Your task to perform on an android device: turn on the 12-hour format for clock Image 0: 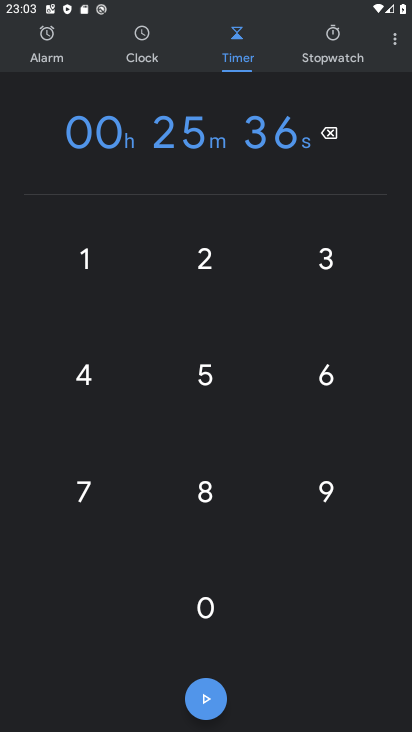
Step 0: click (392, 32)
Your task to perform on an android device: turn on the 12-hour format for clock Image 1: 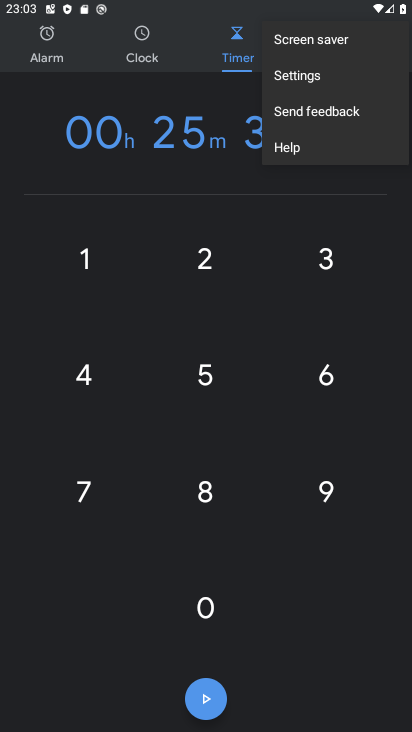
Step 1: click (327, 76)
Your task to perform on an android device: turn on the 12-hour format for clock Image 2: 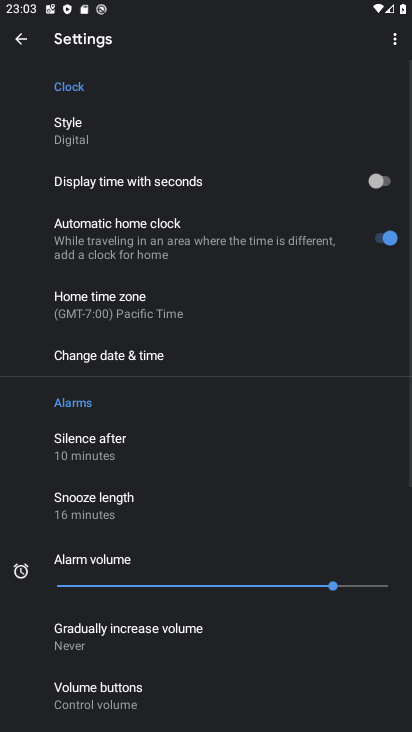
Step 2: click (211, 359)
Your task to perform on an android device: turn on the 12-hour format for clock Image 3: 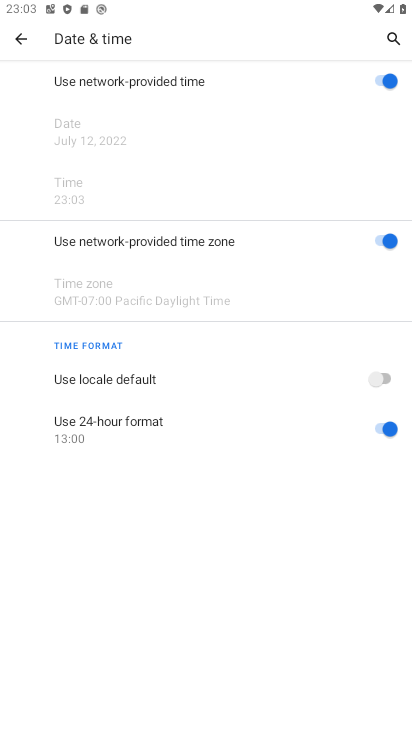
Step 3: click (392, 427)
Your task to perform on an android device: turn on the 12-hour format for clock Image 4: 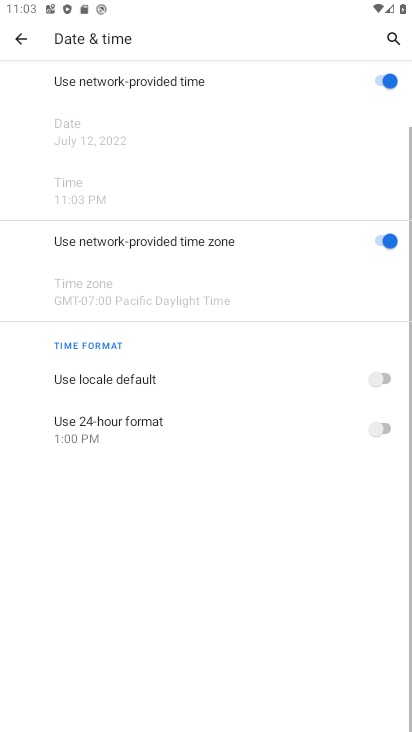
Step 4: click (377, 378)
Your task to perform on an android device: turn on the 12-hour format for clock Image 5: 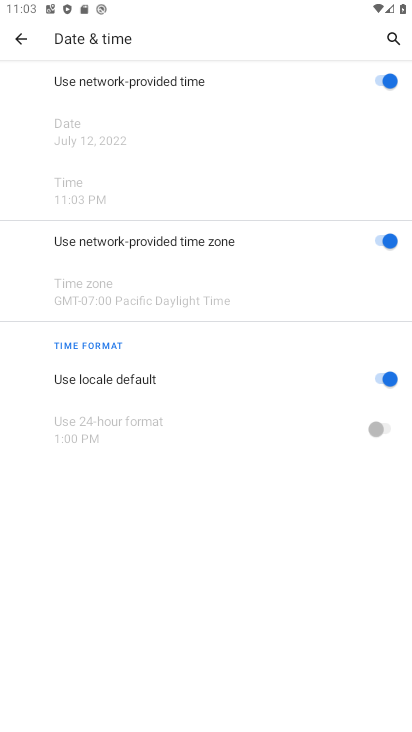
Step 5: task complete